Your task to perform on an android device: create a new album in the google photos Image 0: 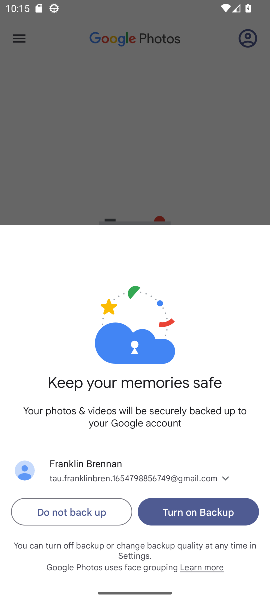
Step 0: click (219, 181)
Your task to perform on an android device: create a new album in the google photos Image 1: 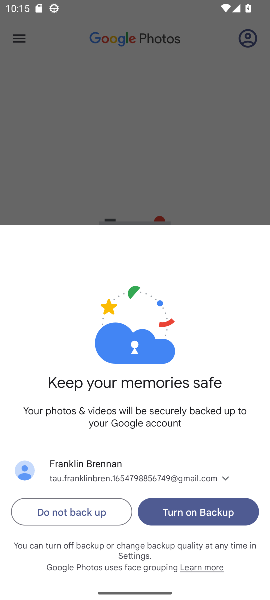
Step 1: press home button
Your task to perform on an android device: create a new album in the google photos Image 2: 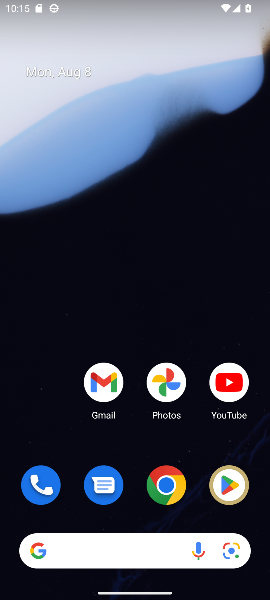
Step 2: drag from (133, 504) to (138, 37)
Your task to perform on an android device: create a new album in the google photos Image 3: 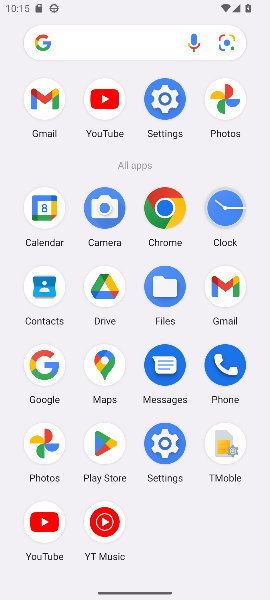
Step 3: click (41, 439)
Your task to perform on an android device: create a new album in the google photos Image 4: 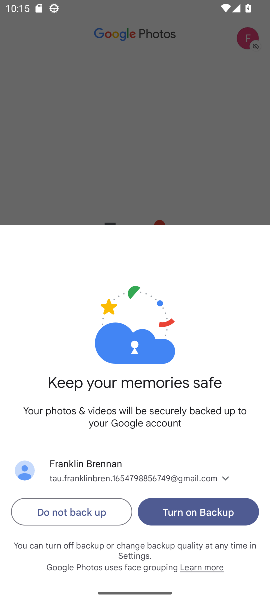
Step 4: click (206, 513)
Your task to perform on an android device: create a new album in the google photos Image 5: 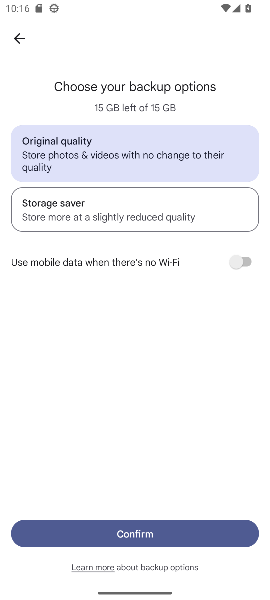
Step 5: click (151, 528)
Your task to perform on an android device: create a new album in the google photos Image 6: 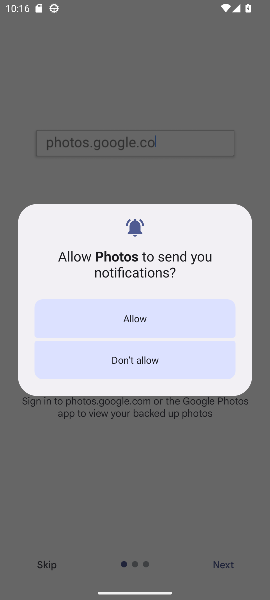
Step 6: click (191, 315)
Your task to perform on an android device: create a new album in the google photos Image 7: 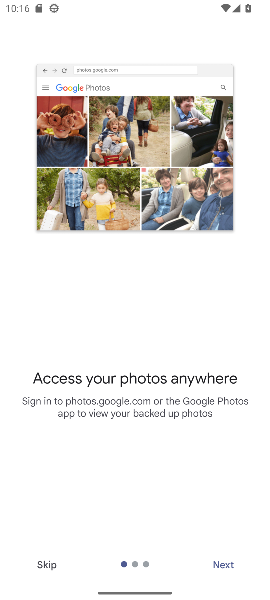
Step 7: click (224, 558)
Your task to perform on an android device: create a new album in the google photos Image 8: 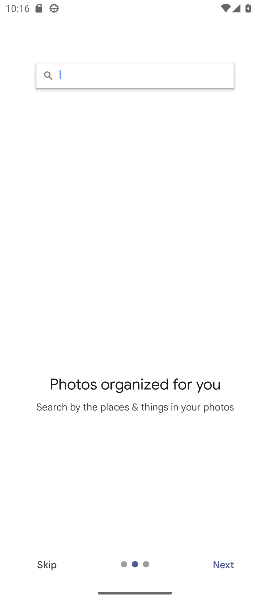
Step 8: click (224, 558)
Your task to perform on an android device: create a new album in the google photos Image 9: 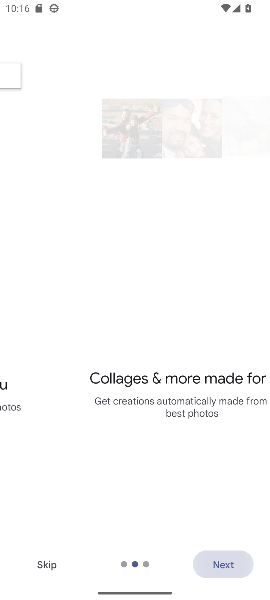
Step 9: click (224, 558)
Your task to perform on an android device: create a new album in the google photos Image 10: 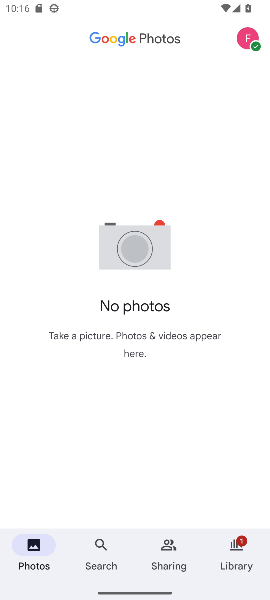
Step 10: click (29, 540)
Your task to perform on an android device: create a new album in the google photos Image 11: 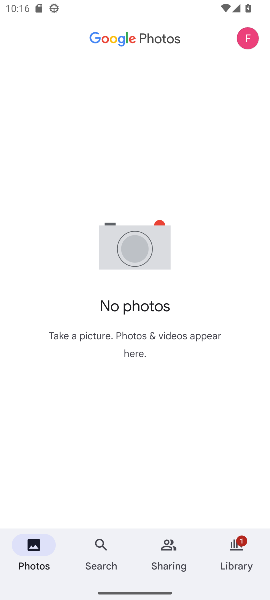
Step 11: click (29, 540)
Your task to perform on an android device: create a new album in the google photos Image 12: 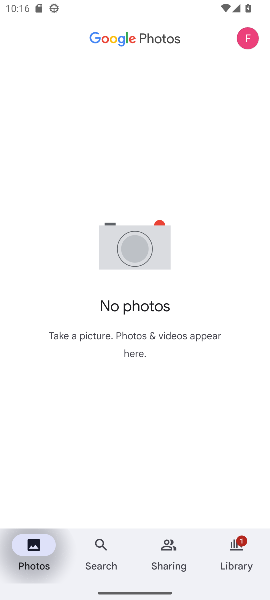
Step 12: click (29, 540)
Your task to perform on an android device: create a new album in the google photos Image 13: 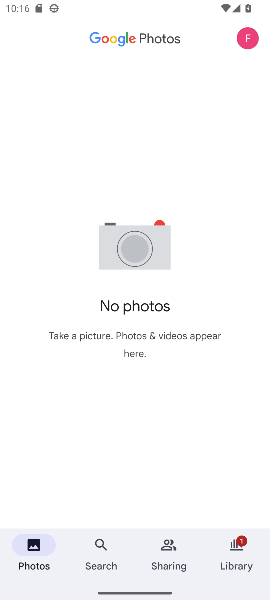
Step 13: task complete